Your task to perform on an android device: View the shopping cart on walmart. Add logitech g pro to the cart on walmart Image 0: 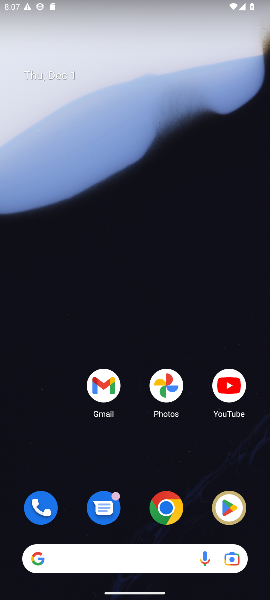
Step 0: click (158, 509)
Your task to perform on an android device: View the shopping cart on walmart. Add logitech g pro to the cart on walmart Image 1: 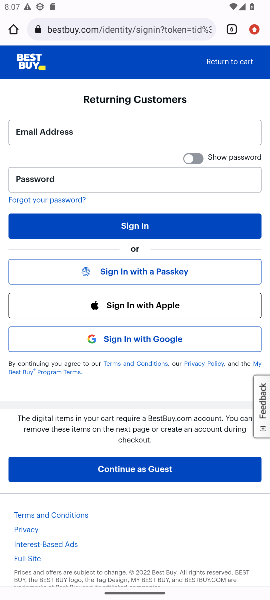
Step 1: click (232, 25)
Your task to perform on an android device: View the shopping cart on walmart. Add logitech g pro to the cart on walmart Image 2: 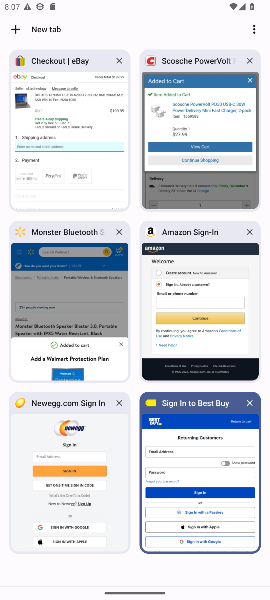
Step 2: click (40, 261)
Your task to perform on an android device: View the shopping cart on walmart. Add logitech g pro to the cart on walmart Image 3: 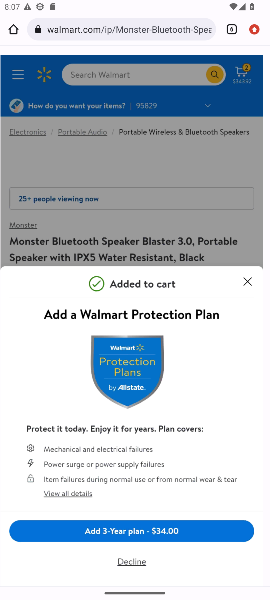
Step 3: click (245, 281)
Your task to perform on an android device: View the shopping cart on walmart. Add logitech g pro to the cart on walmart Image 4: 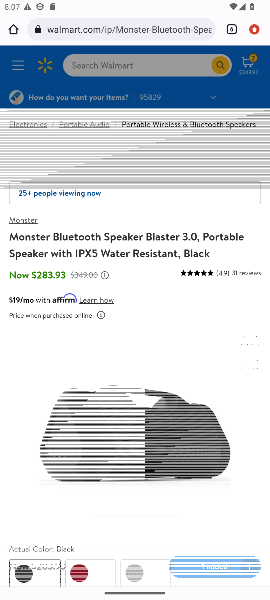
Step 4: click (245, 63)
Your task to perform on an android device: View the shopping cart on walmart. Add logitech g pro to the cart on walmart Image 5: 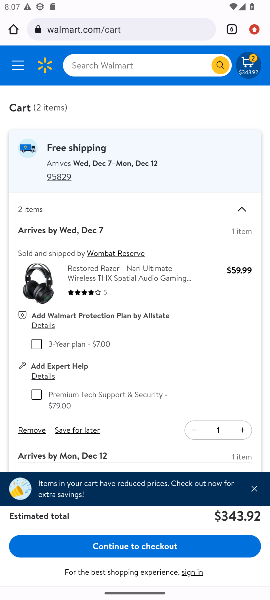
Step 5: drag from (144, 405) to (135, 138)
Your task to perform on an android device: View the shopping cart on walmart. Add logitech g pro to the cart on walmart Image 6: 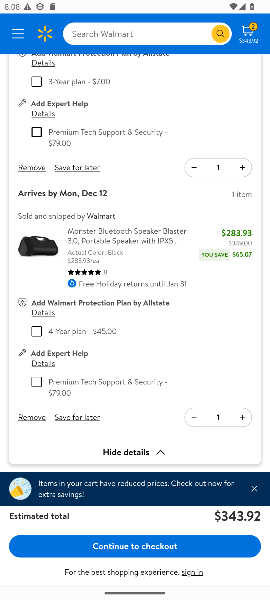
Step 6: click (125, 29)
Your task to perform on an android device: View the shopping cart on walmart. Add logitech g pro to the cart on walmart Image 7: 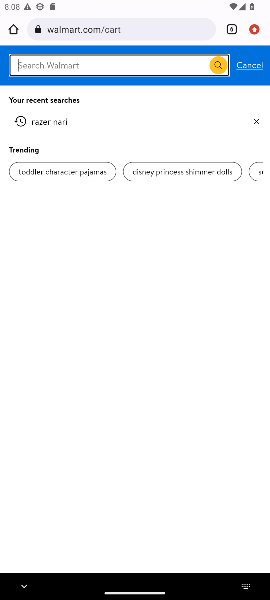
Step 7: type "logitech g pro"
Your task to perform on an android device: View the shopping cart on walmart. Add logitech g pro to the cart on walmart Image 8: 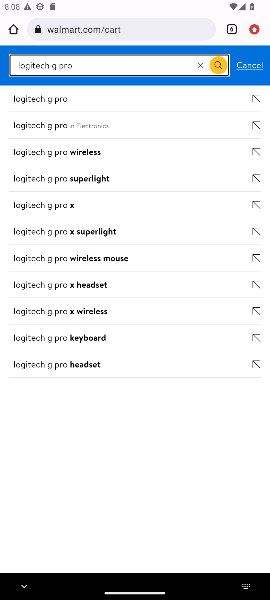
Step 8: click (218, 59)
Your task to perform on an android device: View the shopping cart on walmart. Add logitech g pro to the cart on walmart Image 9: 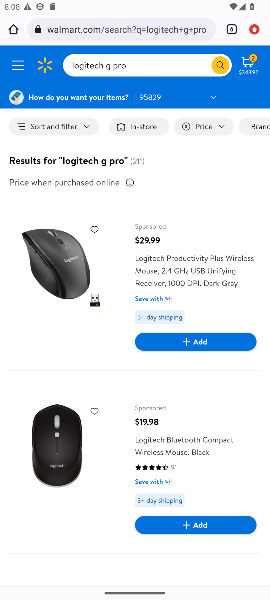
Step 9: click (173, 341)
Your task to perform on an android device: View the shopping cart on walmart. Add logitech g pro to the cart on walmart Image 10: 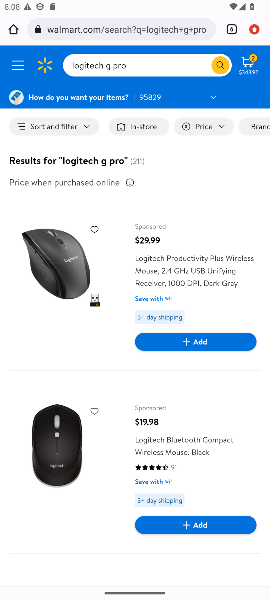
Step 10: click (203, 343)
Your task to perform on an android device: View the shopping cart on walmart. Add logitech g pro to the cart on walmart Image 11: 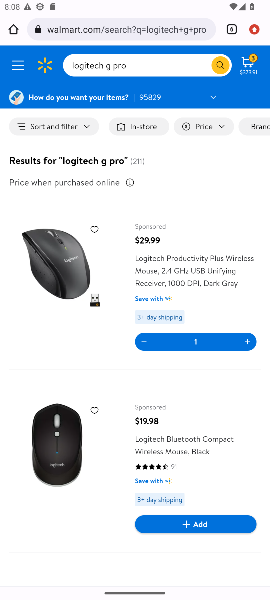
Step 11: task complete